Your task to perform on an android device: Open Maps and search for coffee Image 0: 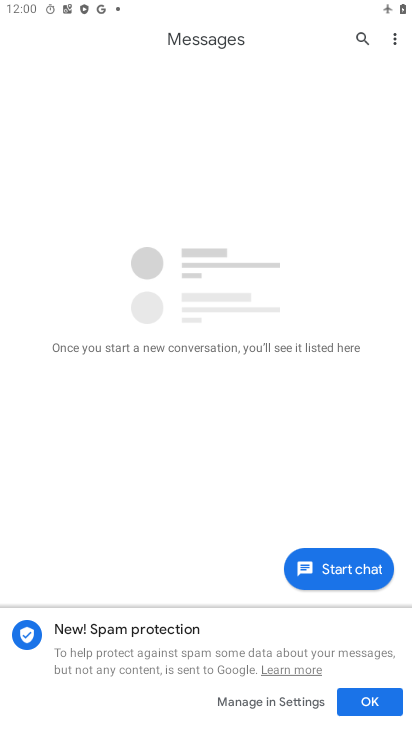
Step 0: press home button
Your task to perform on an android device: Open Maps and search for coffee Image 1: 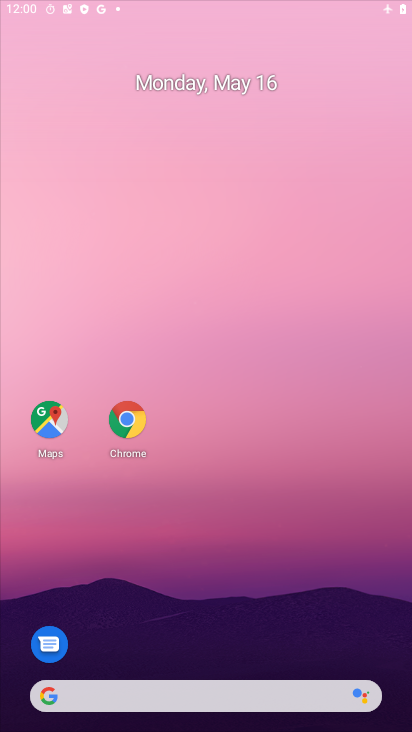
Step 1: drag from (226, 627) to (321, 96)
Your task to perform on an android device: Open Maps and search for coffee Image 2: 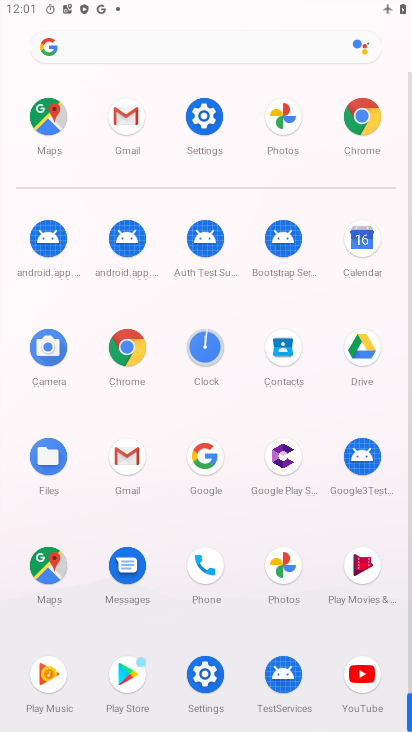
Step 2: click (47, 555)
Your task to perform on an android device: Open Maps and search for coffee Image 3: 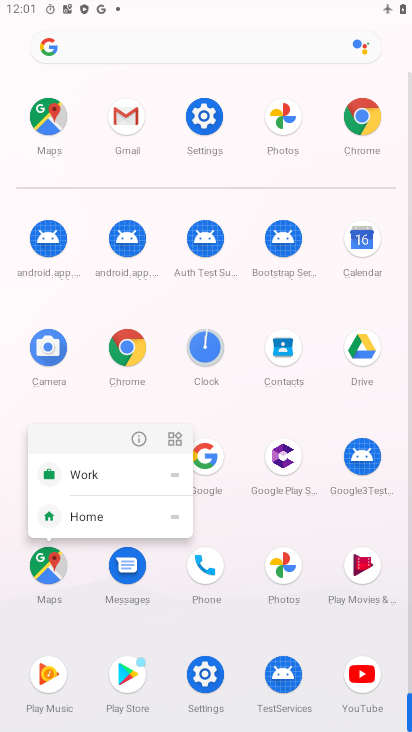
Step 3: click (129, 442)
Your task to perform on an android device: Open Maps and search for coffee Image 4: 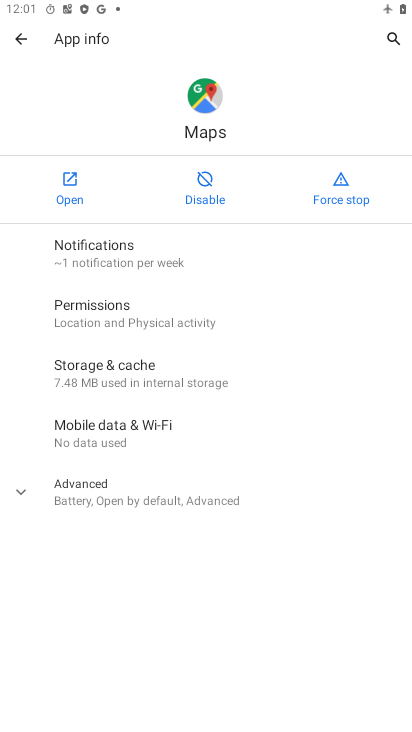
Step 4: click (72, 187)
Your task to perform on an android device: Open Maps and search for coffee Image 5: 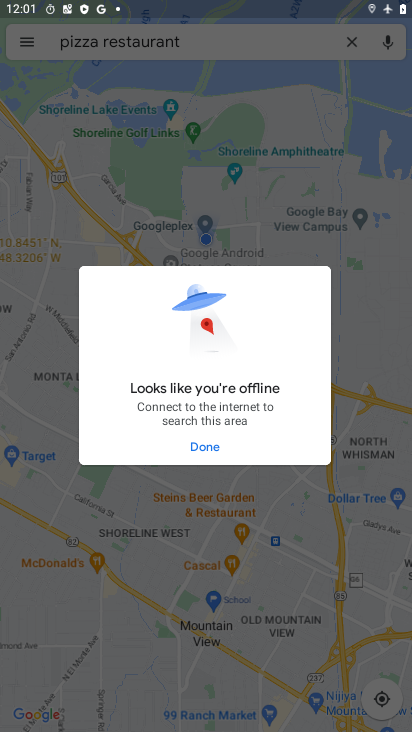
Step 5: click (192, 431)
Your task to perform on an android device: Open Maps and search for coffee Image 6: 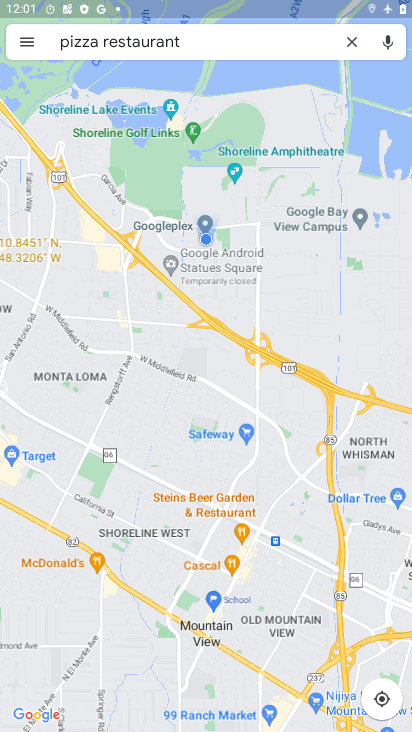
Step 6: click (346, 44)
Your task to perform on an android device: Open Maps and search for coffee Image 7: 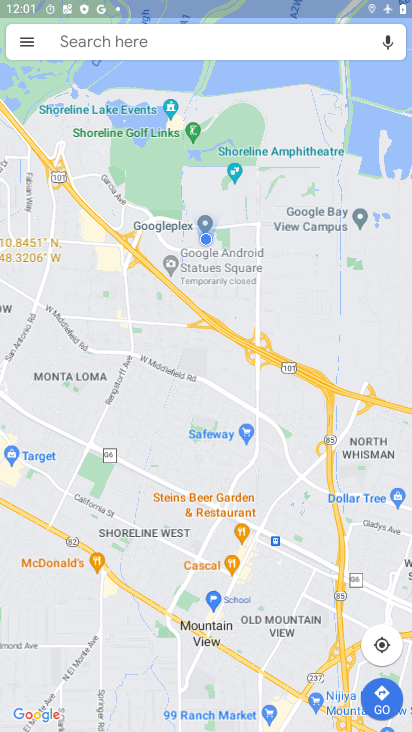
Step 7: click (148, 39)
Your task to perform on an android device: Open Maps and search for coffee Image 8: 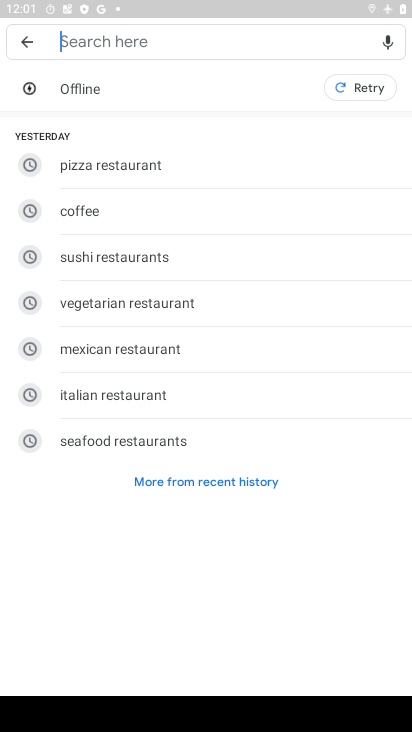
Step 8: click (114, 226)
Your task to perform on an android device: Open Maps and search for coffee Image 9: 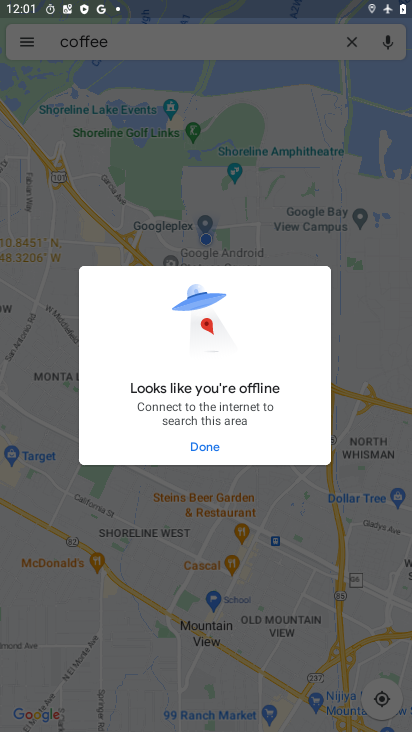
Step 9: click (204, 453)
Your task to perform on an android device: Open Maps and search for coffee Image 10: 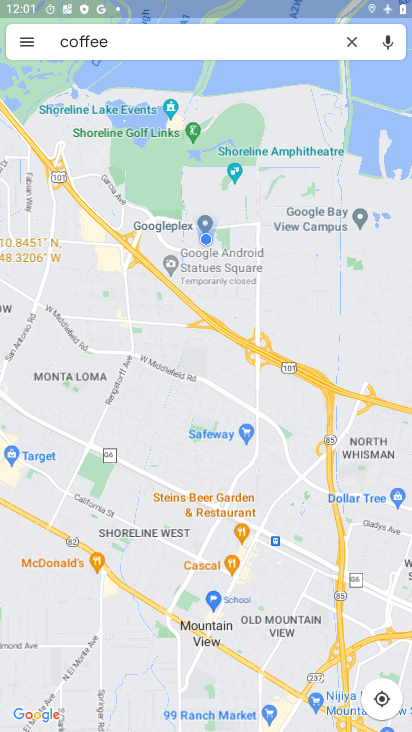
Step 10: task complete